Your task to perform on an android device: Open the phone app and click the voicemail tab. Image 0: 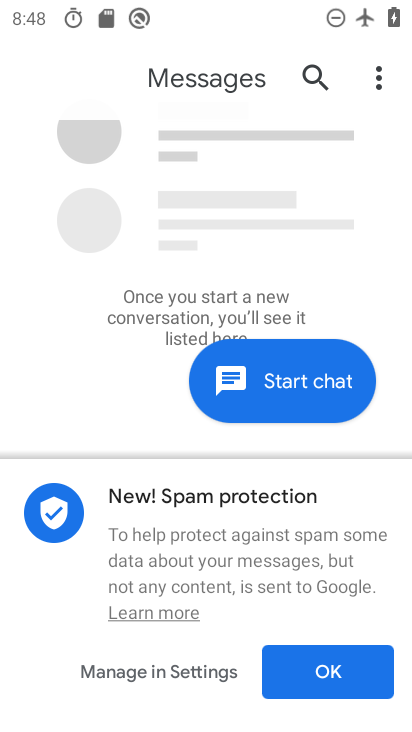
Step 0: press home button
Your task to perform on an android device: Open the phone app and click the voicemail tab. Image 1: 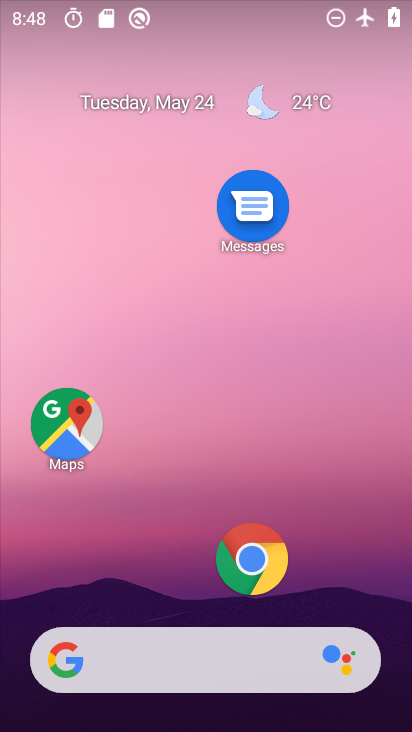
Step 1: drag from (158, 583) to (182, 307)
Your task to perform on an android device: Open the phone app and click the voicemail tab. Image 2: 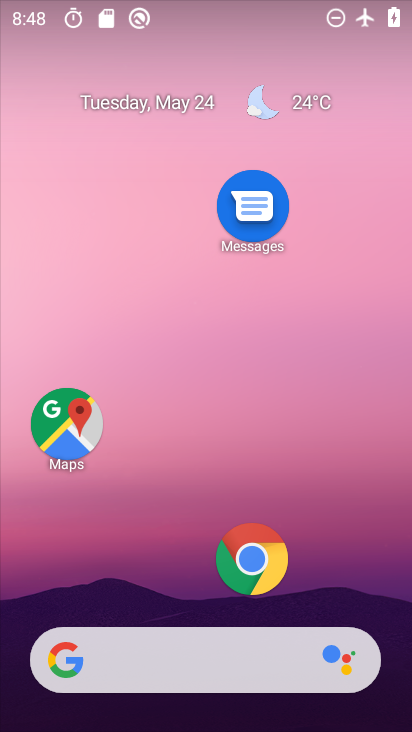
Step 2: drag from (183, 596) to (149, 213)
Your task to perform on an android device: Open the phone app and click the voicemail tab. Image 3: 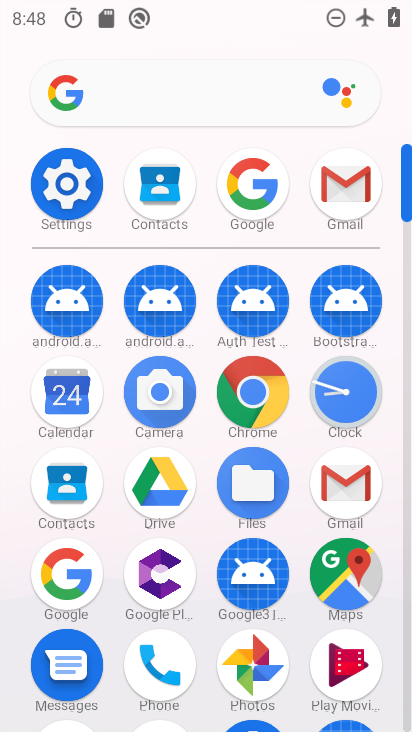
Step 3: click (142, 639)
Your task to perform on an android device: Open the phone app and click the voicemail tab. Image 4: 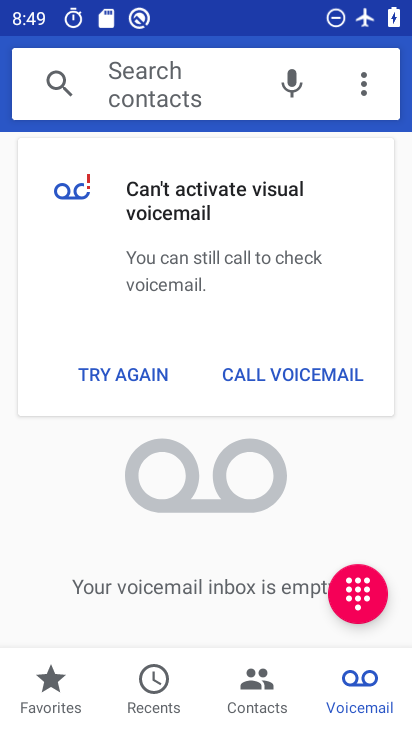
Step 4: task complete